Your task to perform on an android device: set an alarm Image 0: 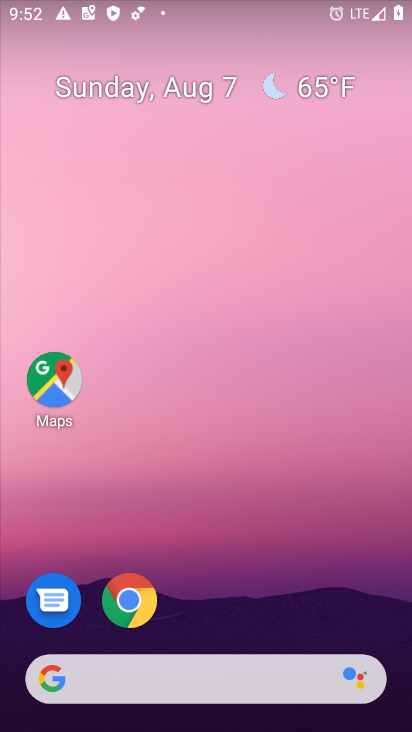
Step 0: drag from (178, 558) to (178, 239)
Your task to perform on an android device: set an alarm Image 1: 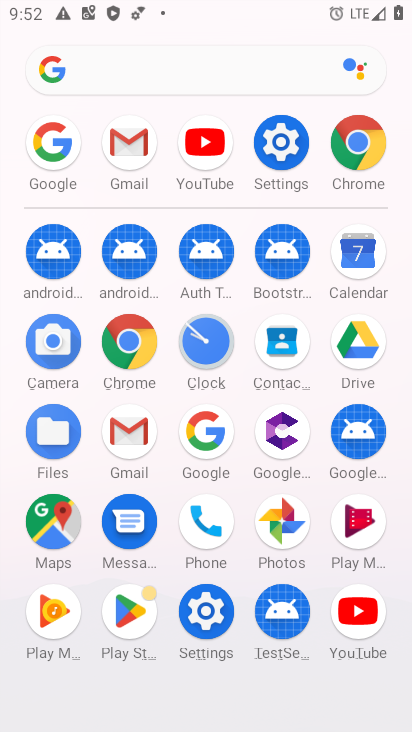
Step 1: click (212, 356)
Your task to perform on an android device: set an alarm Image 2: 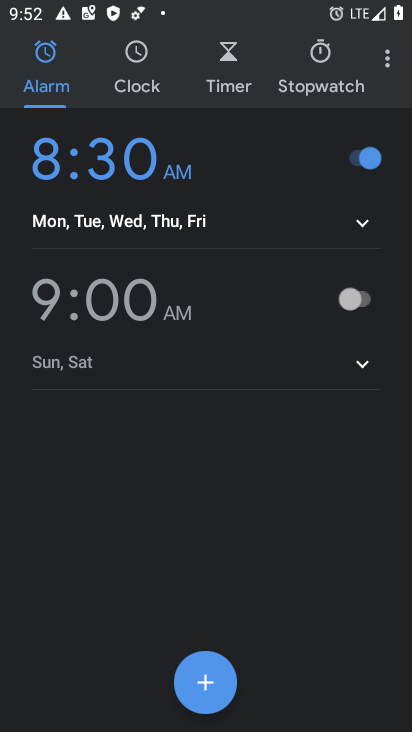
Step 2: click (370, 303)
Your task to perform on an android device: set an alarm Image 3: 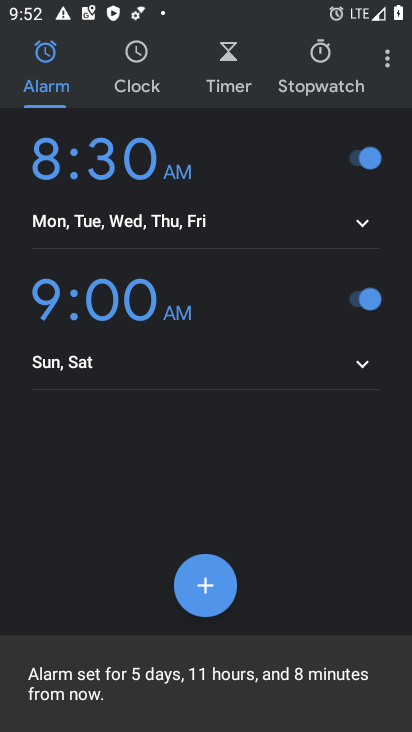
Step 3: task complete